Your task to perform on an android device: Do I have any events today? Image 0: 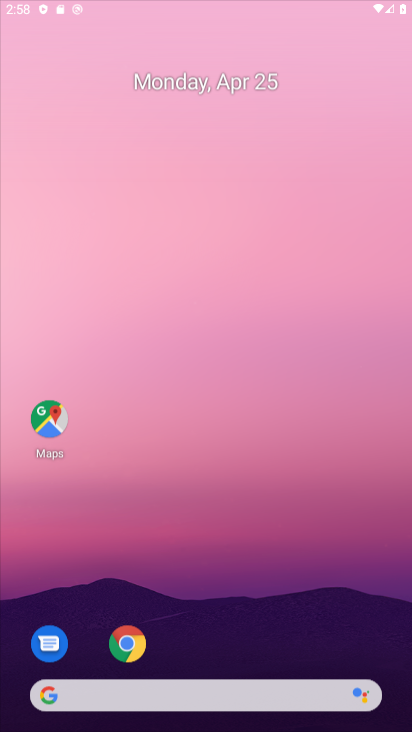
Step 0: drag from (209, 647) to (195, 133)
Your task to perform on an android device: Do I have any events today? Image 1: 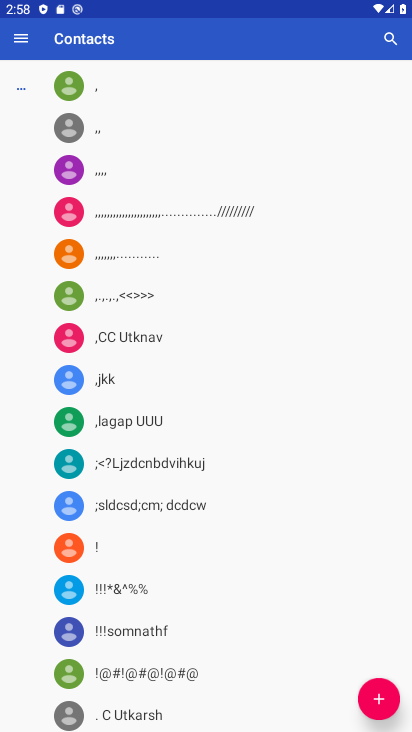
Step 1: press home button
Your task to perform on an android device: Do I have any events today? Image 2: 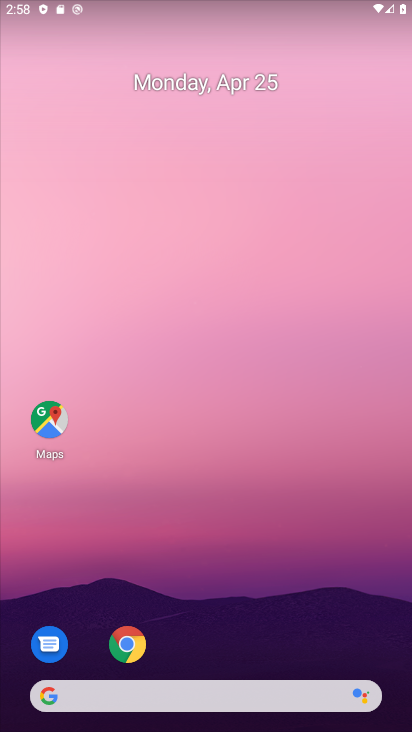
Step 2: drag from (271, 648) to (199, 215)
Your task to perform on an android device: Do I have any events today? Image 3: 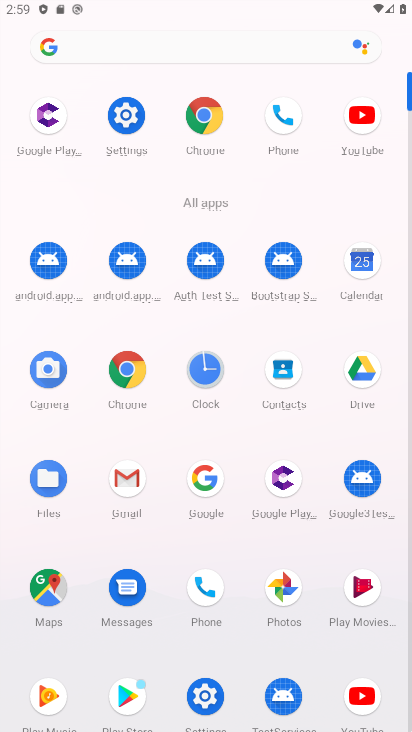
Step 3: click (359, 281)
Your task to perform on an android device: Do I have any events today? Image 4: 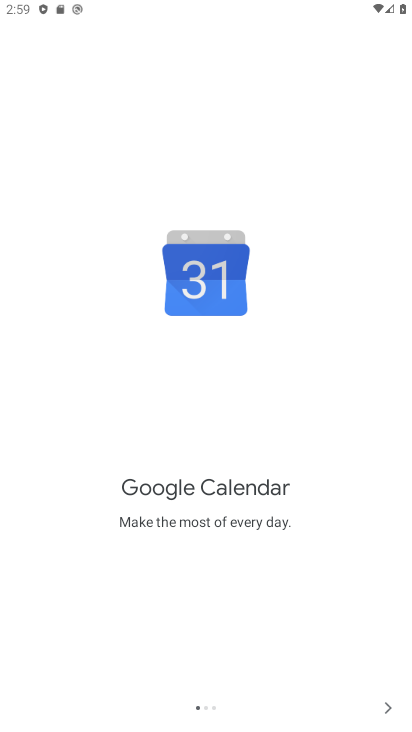
Step 4: click (387, 720)
Your task to perform on an android device: Do I have any events today? Image 5: 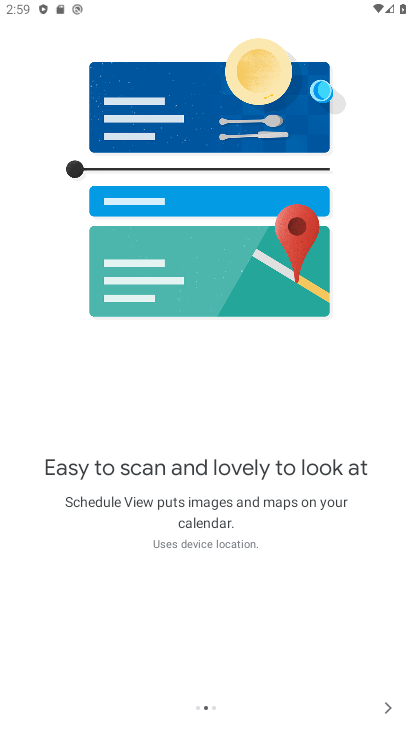
Step 5: click (387, 720)
Your task to perform on an android device: Do I have any events today? Image 6: 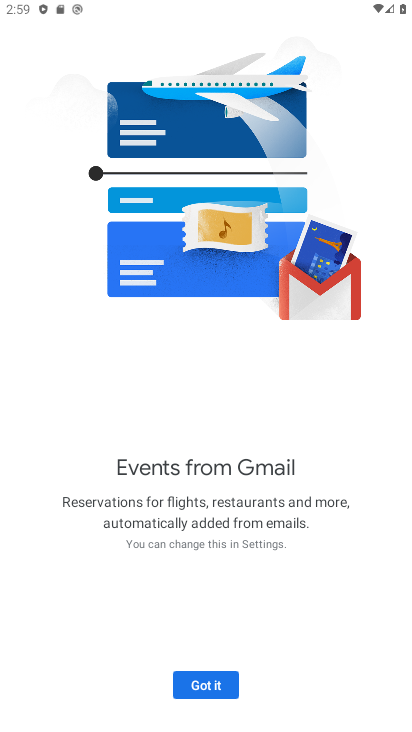
Step 6: click (221, 686)
Your task to perform on an android device: Do I have any events today? Image 7: 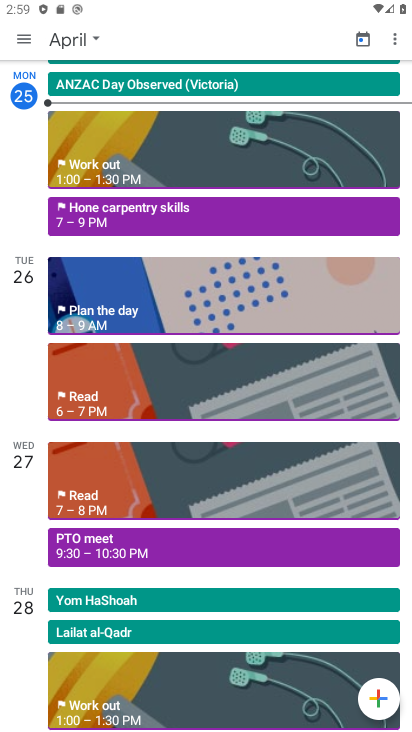
Step 7: click (23, 41)
Your task to perform on an android device: Do I have any events today? Image 8: 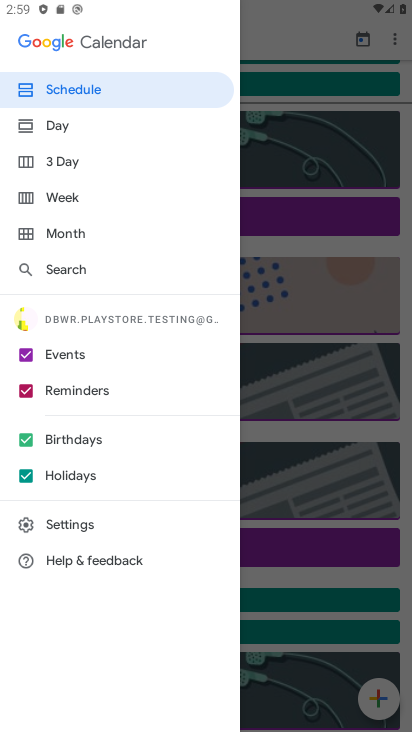
Step 8: click (293, 38)
Your task to perform on an android device: Do I have any events today? Image 9: 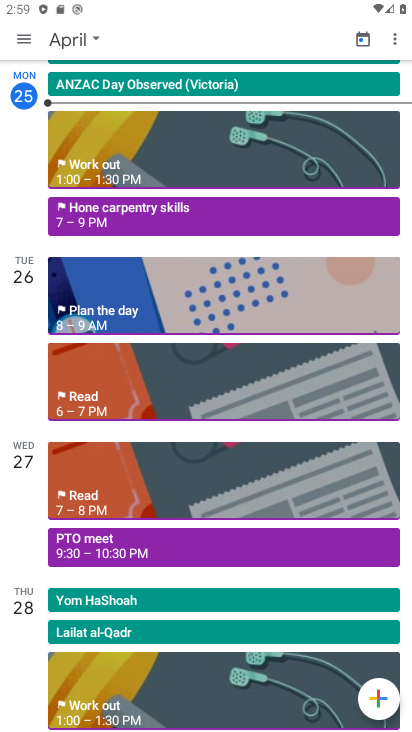
Step 9: click (24, 39)
Your task to perform on an android device: Do I have any events today? Image 10: 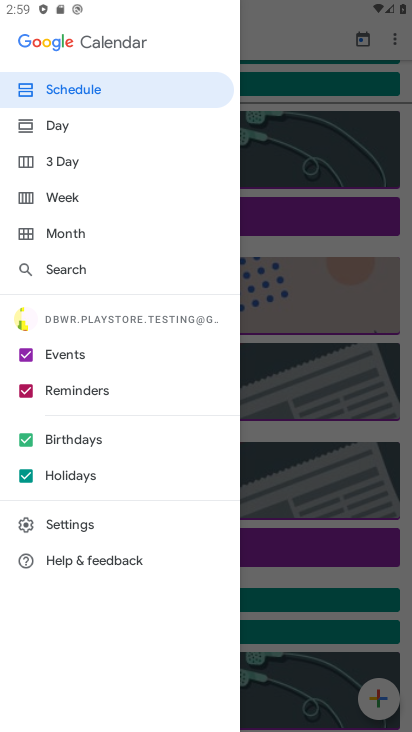
Step 10: click (24, 477)
Your task to perform on an android device: Do I have any events today? Image 11: 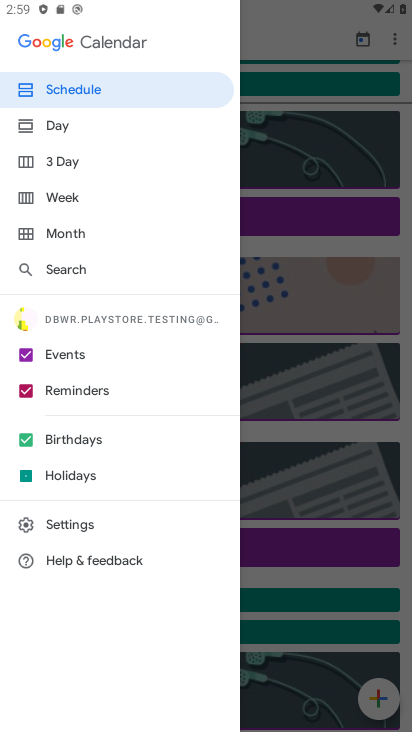
Step 11: click (24, 440)
Your task to perform on an android device: Do I have any events today? Image 12: 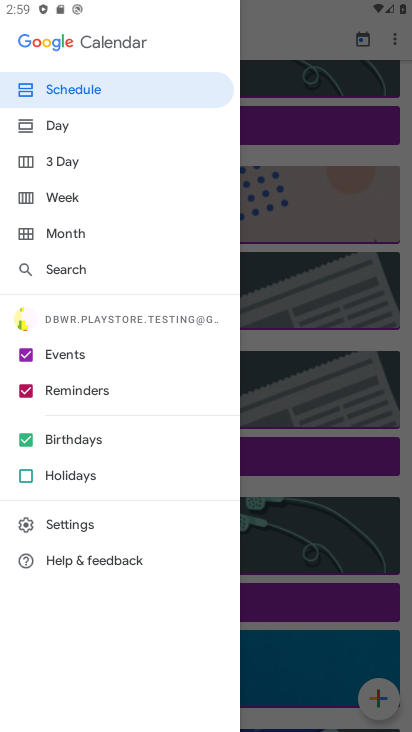
Step 12: click (24, 386)
Your task to perform on an android device: Do I have any events today? Image 13: 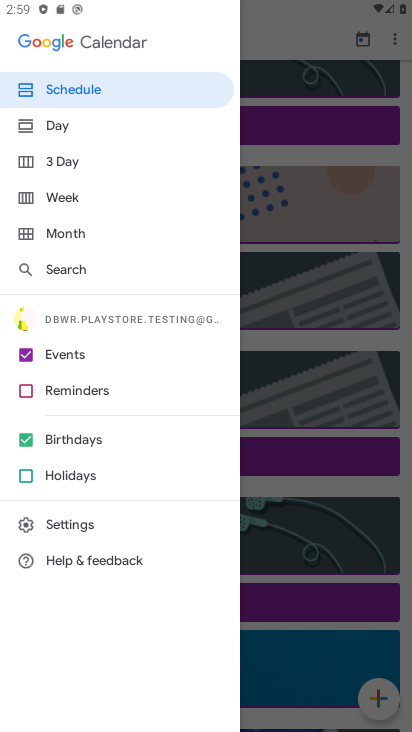
Step 13: click (23, 442)
Your task to perform on an android device: Do I have any events today? Image 14: 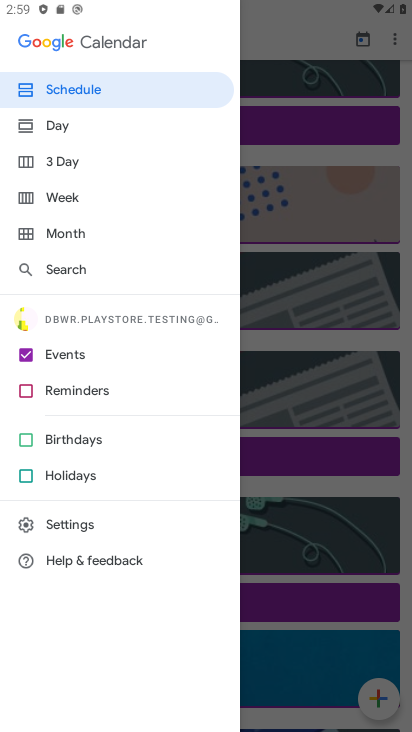
Step 14: click (85, 99)
Your task to perform on an android device: Do I have any events today? Image 15: 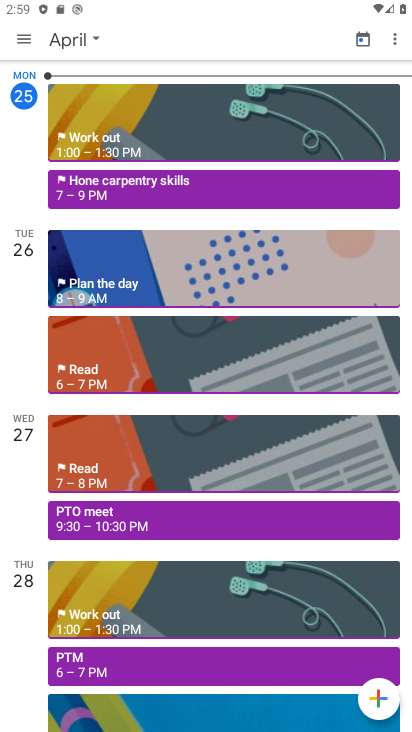
Step 15: task complete